Your task to perform on an android device: read, delete, or share a saved page in the chrome app Image 0: 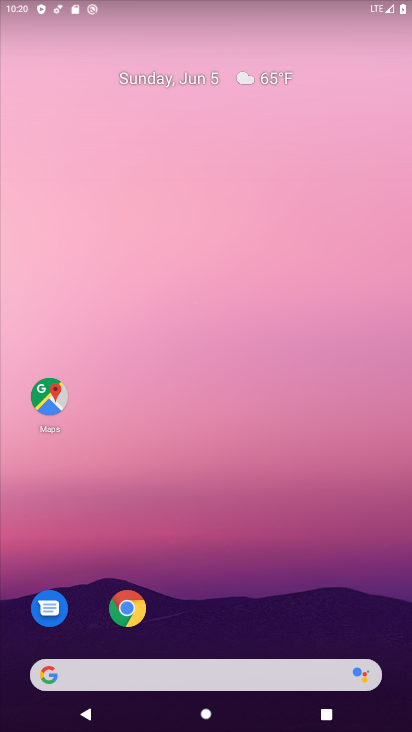
Step 0: click (129, 602)
Your task to perform on an android device: read, delete, or share a saved page in the chrome app Image 1: 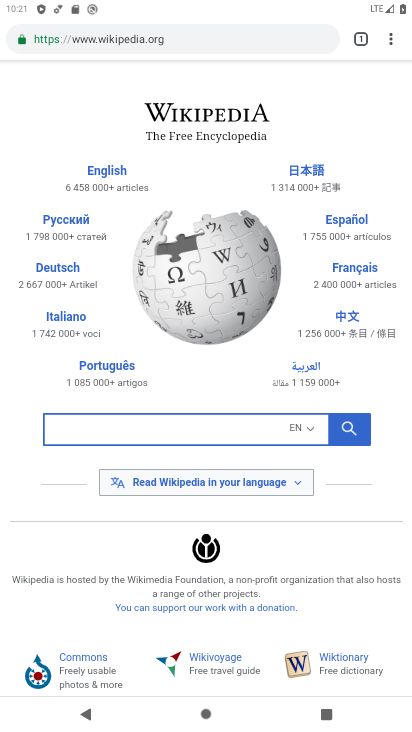
Step 1: drag from (393, 35) to (280, 296)
Your task to perform on an android device: read, delete, or share a saved page in the chrome app Image 2: 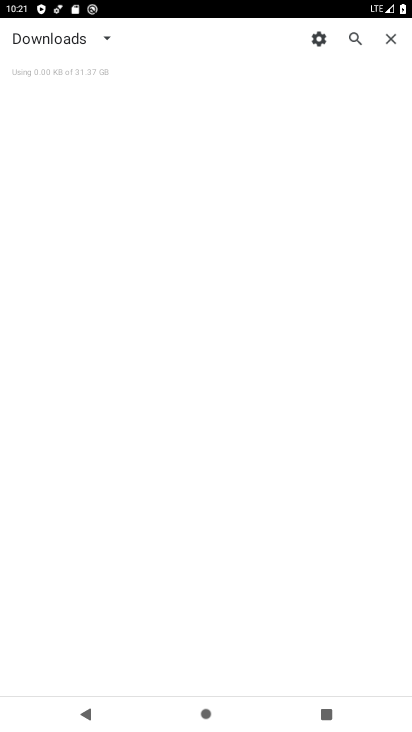
Step 2: click (101, 40)
Your task to perform on an android device: read, delete, or share a saved page in the chrome app Image 3: 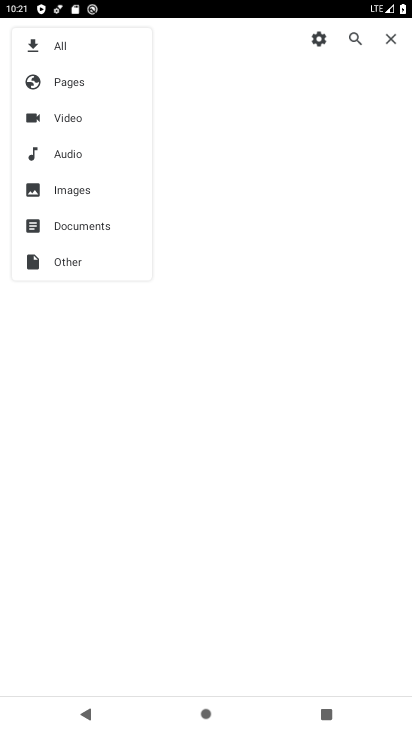
Step 3: click (66, 85)
Your task to perform on an android device: read, delete, or share a saved page in the chrome app Image 4: 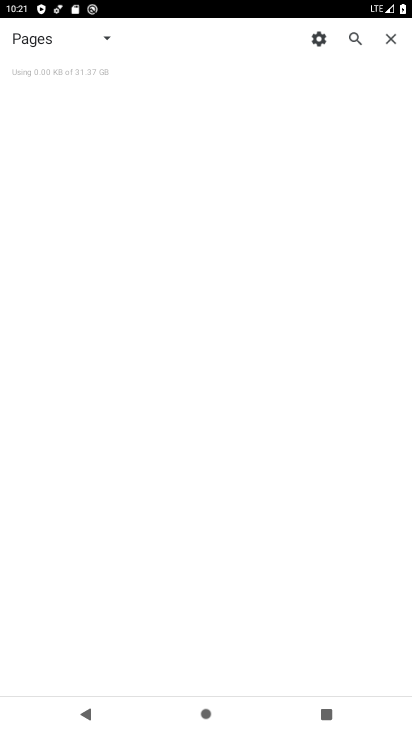
Step 4: task complete